Your task to perform on an android device: turn on the 12-hour format for clock Image 0: 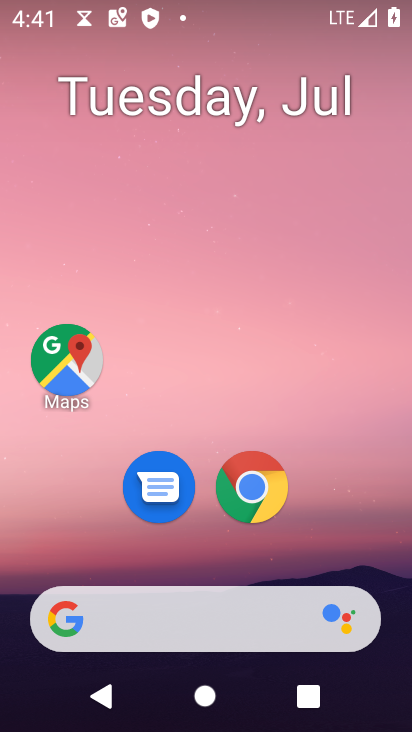
Step 0: drag from (190, 489) to (243, 15)
Your task to perform on an android device: turn on the 12-hour format for clock Image 1: 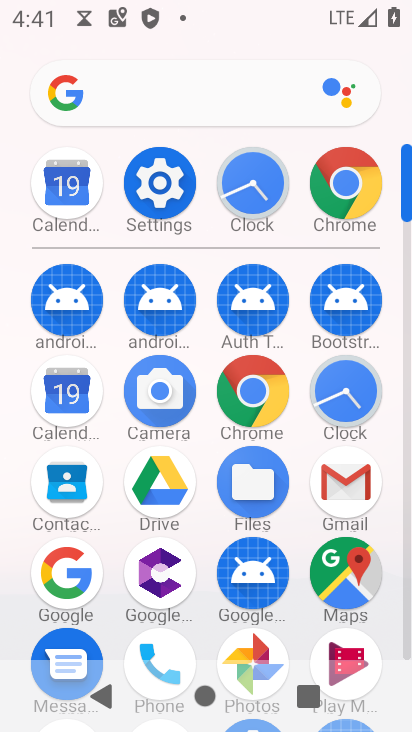
Step 1: click (337, 387)
Your task to perform on an android device: turn on the 12-hour format for clock Image 2: 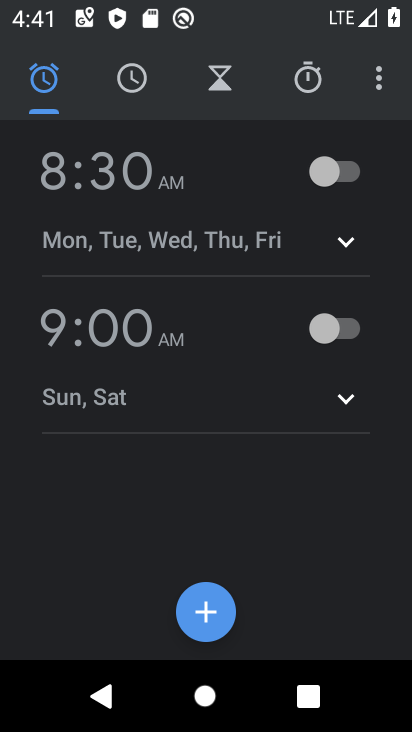
Step 2: click (377, 65)
Your task to perform on an android device: turn on the 12-hour format for clock Image 3: 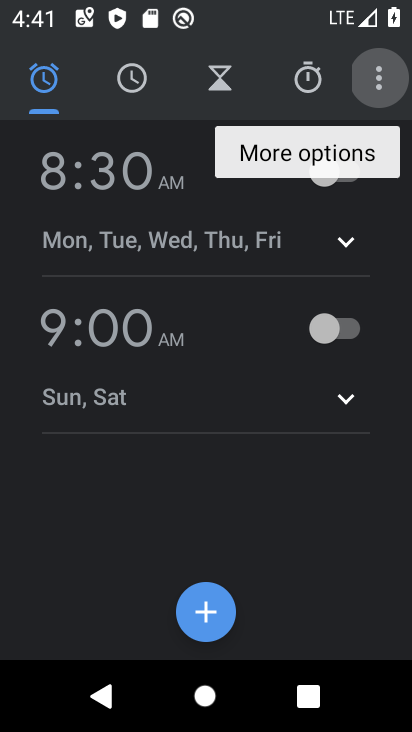
Step 3: click (380, 76)
Your task to perform on an android device: turn on the 12-hour format for clock Image 4: 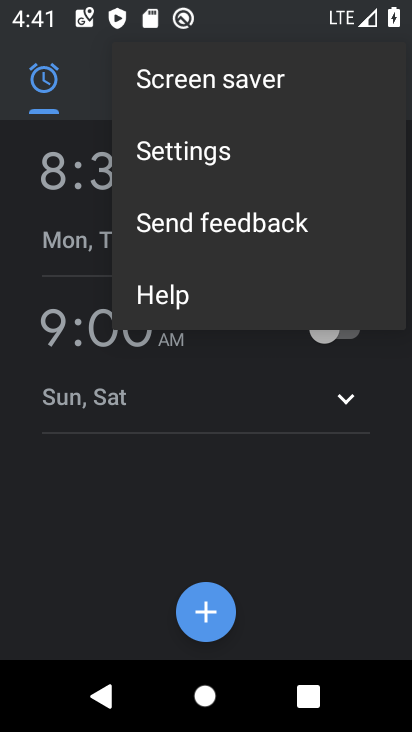
Step 4: click (204, 154)
Your task to perform on an android device: turn on the 12-hour format for clock Image 5: 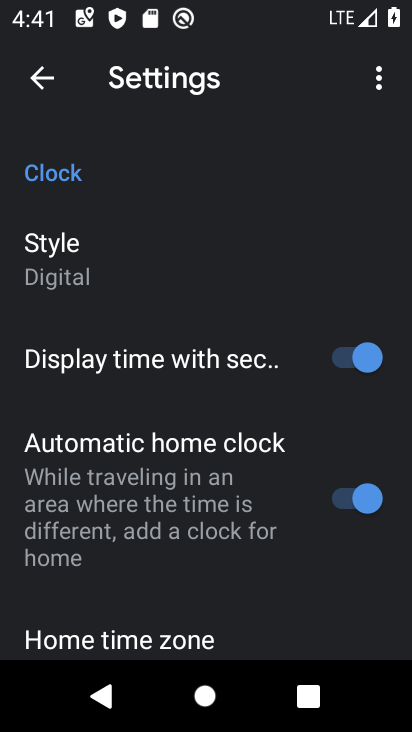
Step 5: drag from (163, 605) to (211, 166)
Your task to perform on an android device: turn on the 12-hour format for clock Image 6: 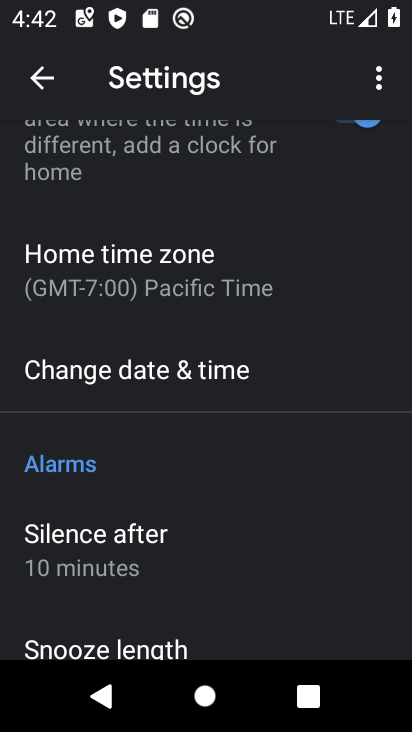
Step 6: click (168, 382)
Your task to perform on an android device: turn on the 12-hour format for clock Image 7: 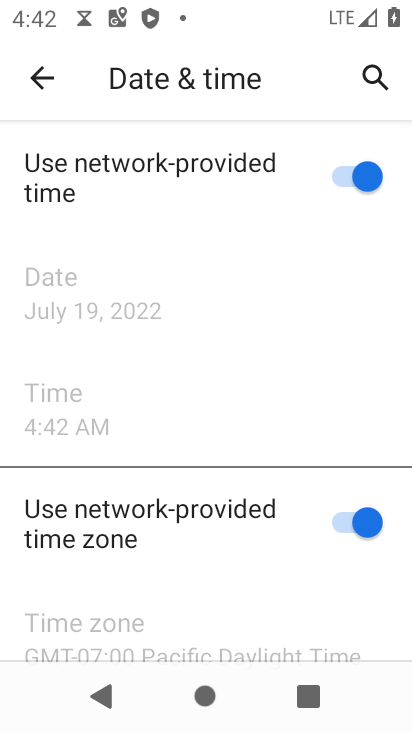
Step 7: task complete